Your task to perform on an android device: turn off data saver in the chrome app Image 0: 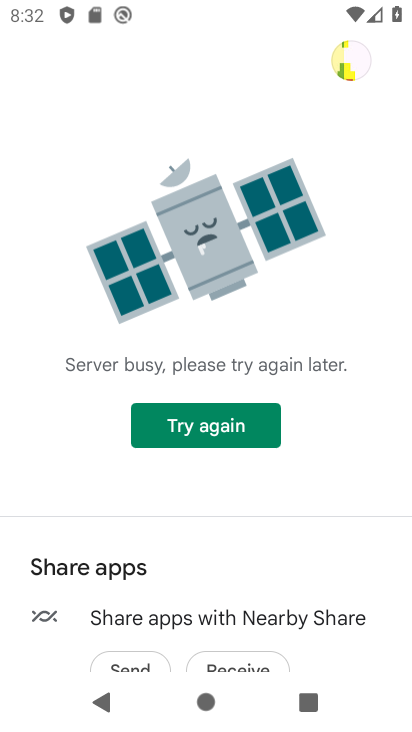
Step 0: press home button
Your task to perform on an android device: turn off data saver in the chrome app Image 1: 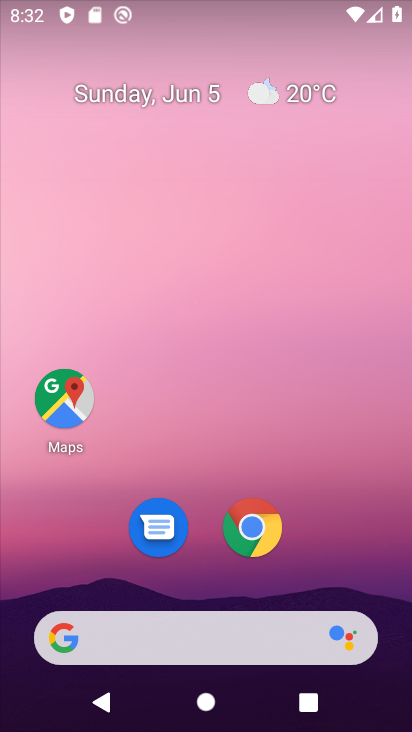
Step 1: click (250, 527)
Your task to perform on an android device: turn off data saver in the chrome app Image 2: 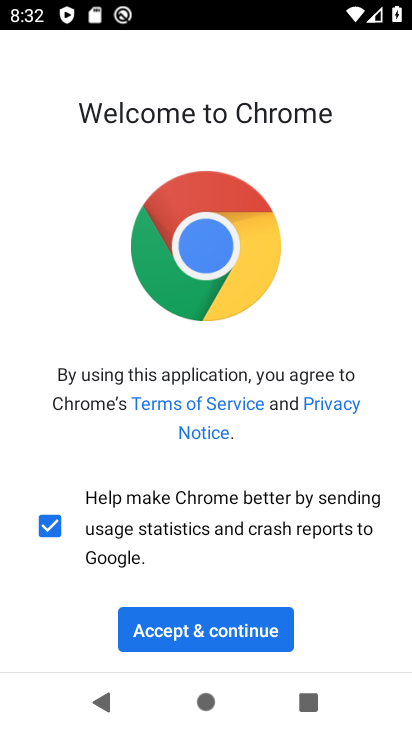
Step 2: click (226, 629)
Your task to perform on an android device: turn off data saver in the chrome app Image 3: 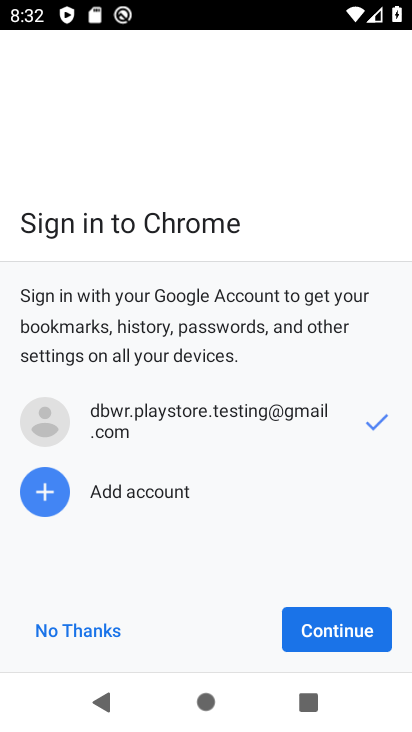
Step 3: click (337, 633)
Your task to perform on an android device: turn off data saver in the chrome app Image 4: 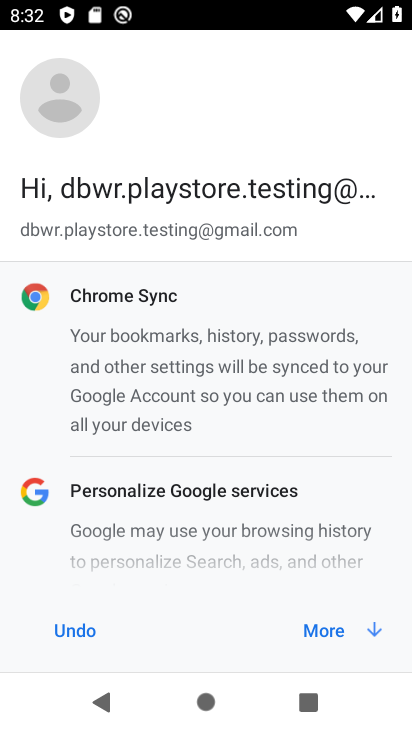
Step 4: click (337, 633)
Your task to perform on an android device: turn off data saver in the chrome app Image 5: 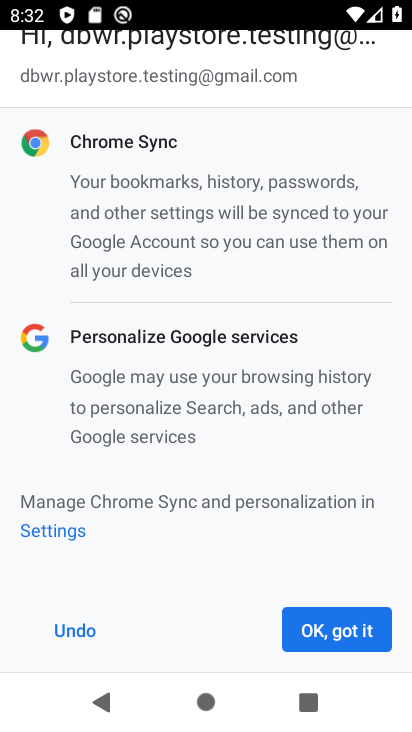
Step 5: click (337, 633)
Your task to perform on an android device: turn off data saver in the chrome app Image 6: 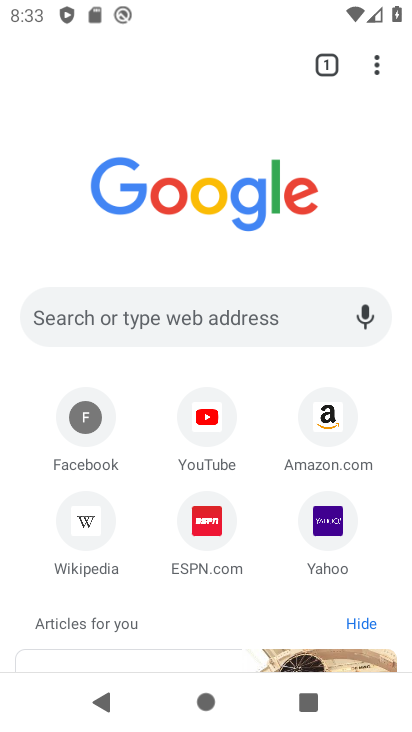
Step 6: click (377, 73)
Your task to perform on an android device: turn off data saver in the chrome app Image 7: 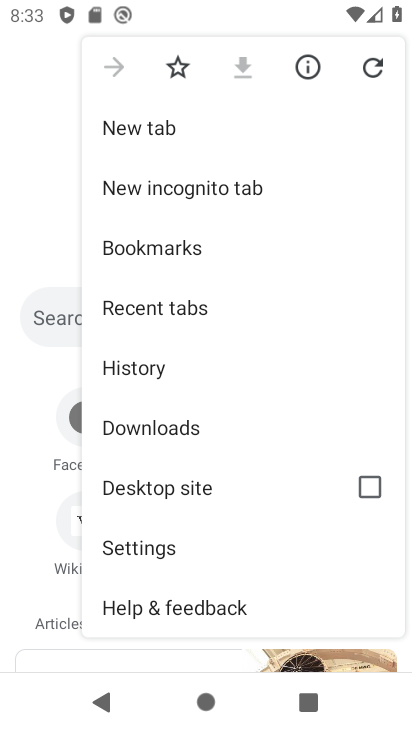
Step 7: click (144, 546)
Your task to perform on an android device: turn off data saver in the chrome app Image 8: 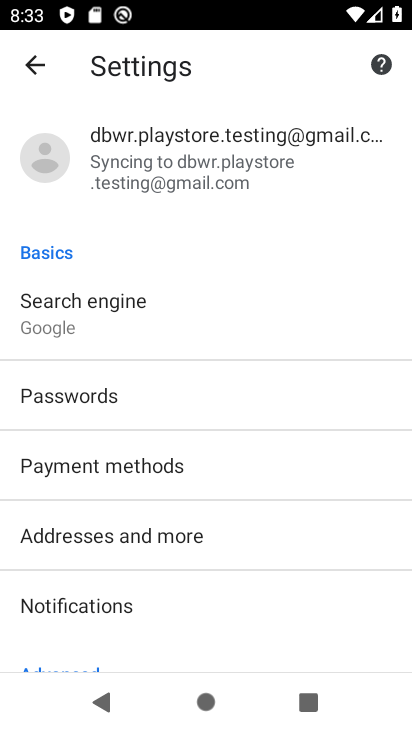
Step 8: drag from (195, 630) to (203, 269)
Your task to perform on an android device: turn off data saver in the chrome app Image 9: 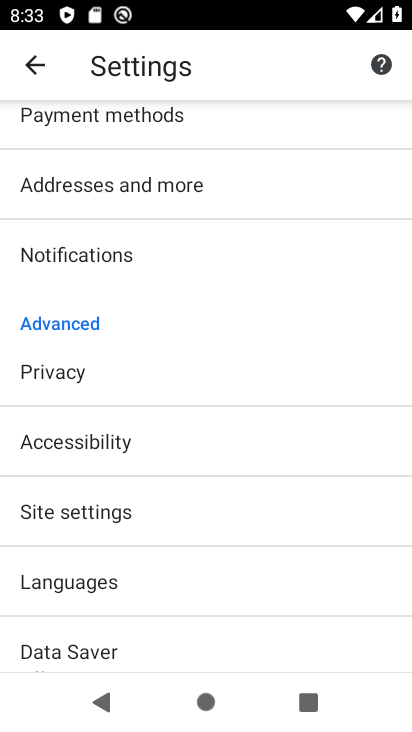
Step 9: click (129, 644)
Your task to perform on an android device: turn off data saver in the chrome app Image 10: 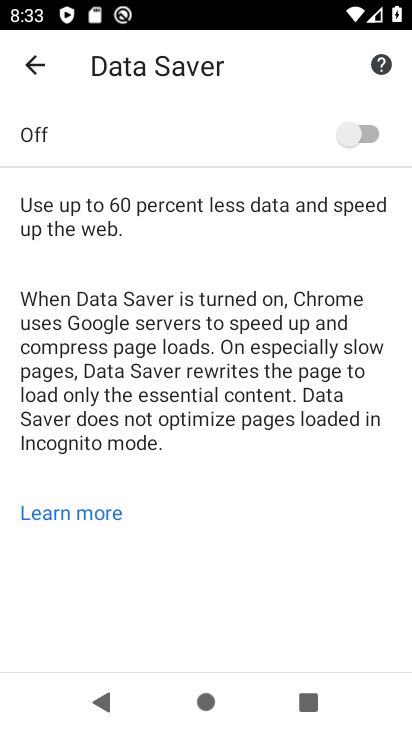
Step 10: task complete